Your task to perform on an android device: open sync settings in chrome Image 0: 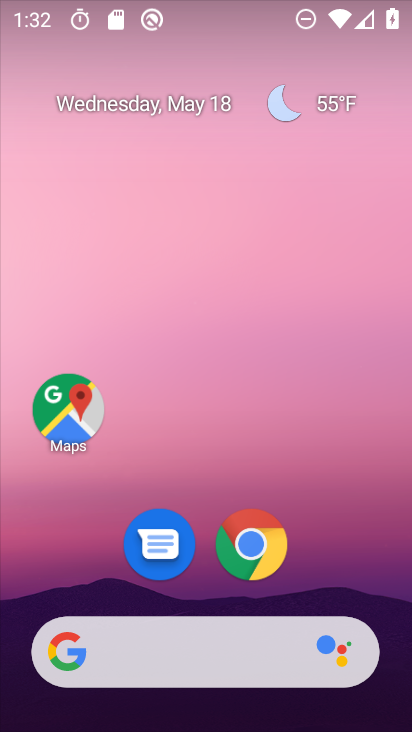
Step 0: click (268, 551)
Your task to perform on an android device: open sync settings in chrome Image 1: 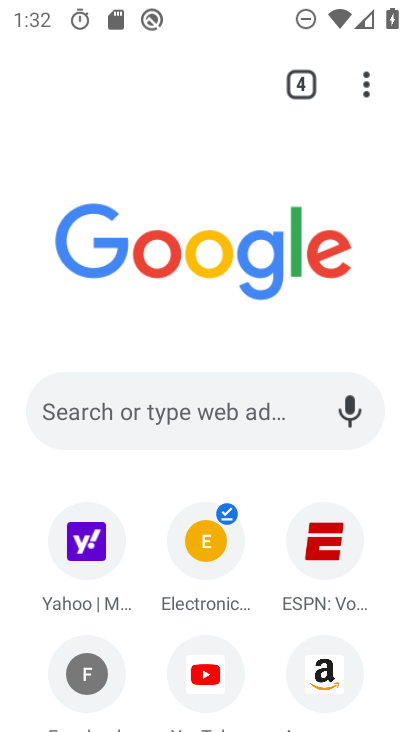
Step 1: click (368, 81)
Your task to perform on an android device: open sync settings in chrome Image 2: 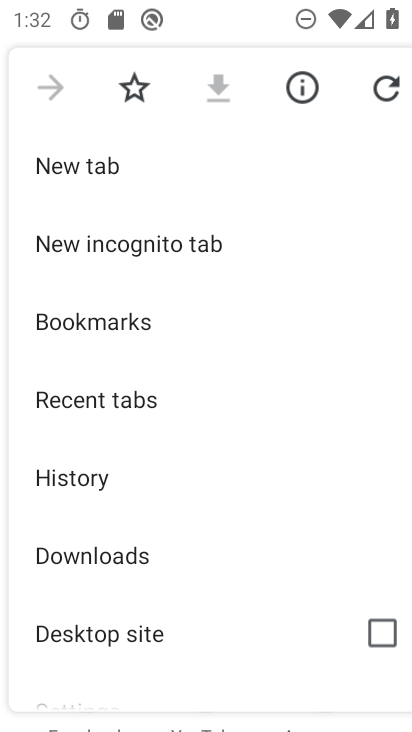
Step 2: drag from (197, 602) to (204, 444)
Your task to perform on an android device: open sync settings in chrome Image 3: 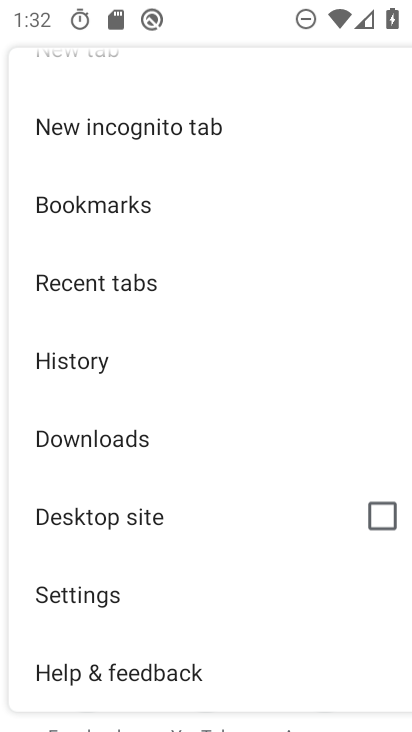
Step 3: click (111, 588)
Your task to perform on an android device: open sync settings in chrome Image 4: 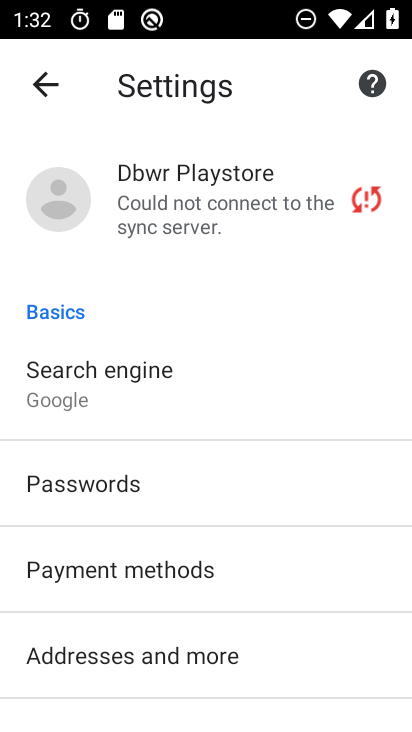
Step 4: drag from (298, 578) to (281, 255)
Your task to perform on an android device: open sync settings in chrome Image 5: 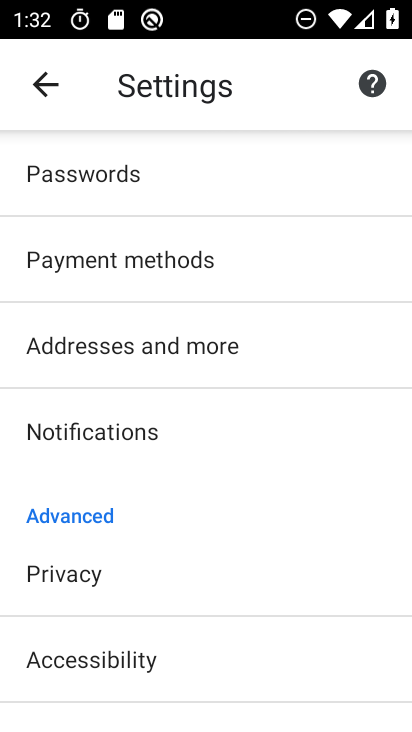
Step 5: drag from (278, 164) to (259, 579)
Your task to perform on an android device: open sync settings in chrome Image 6: 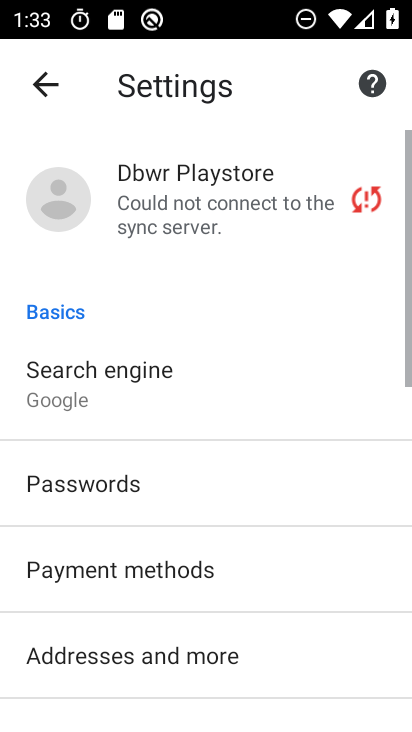
Step 6: click (211, 201)
Your task to perform on an android device: open sync settings in chrome Image 7: 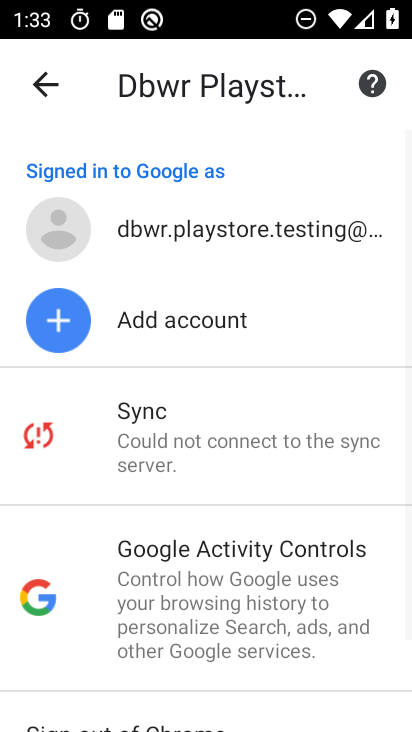
Step 7: click (205, 435)
Your task to perform on an android device: open sync settings in chrome Image 8: 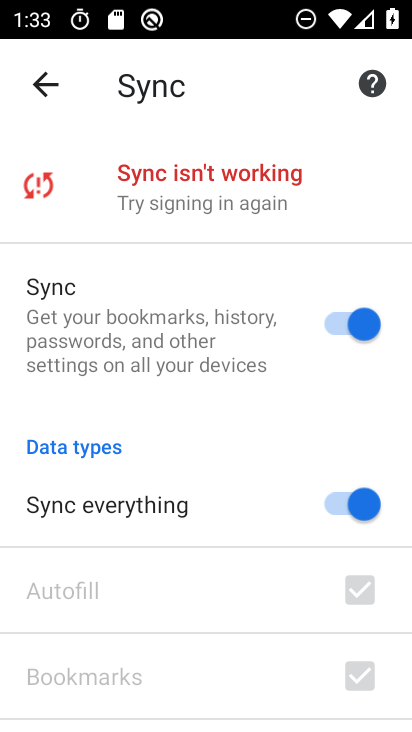
Step 8: task complete